Your task to perform on an android device: find photos in the google photos app Image 0: 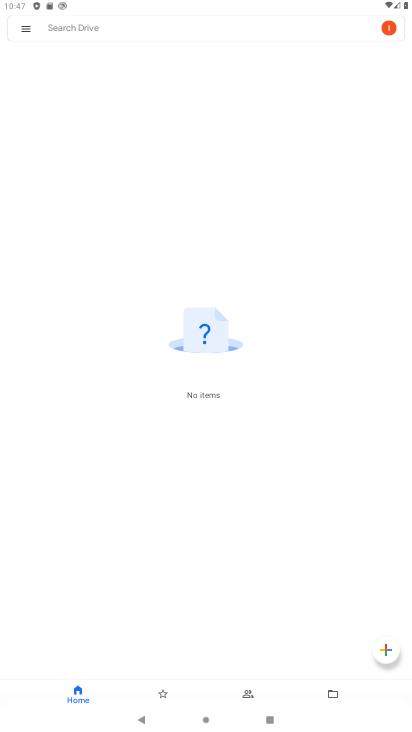
Step 0: press home button
Your task to perform on an android device: find photos in the google photos app Image 1: 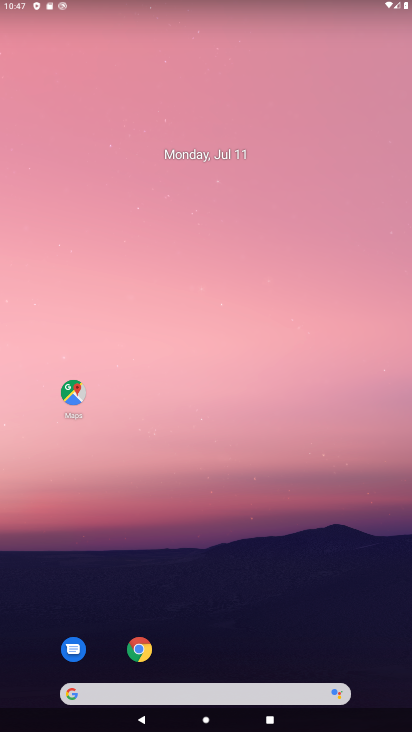
Step 1: drag from (191, 698) to (196, 283)
Your task to perform on an android device: find photos in the google photos app Image 2: 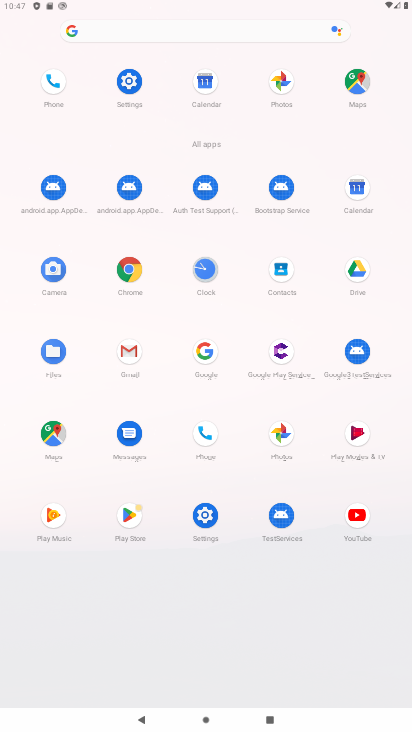
Step 2: click (282, 433)
Your task to perform on an android device: find photos in the google photos app Image 3: 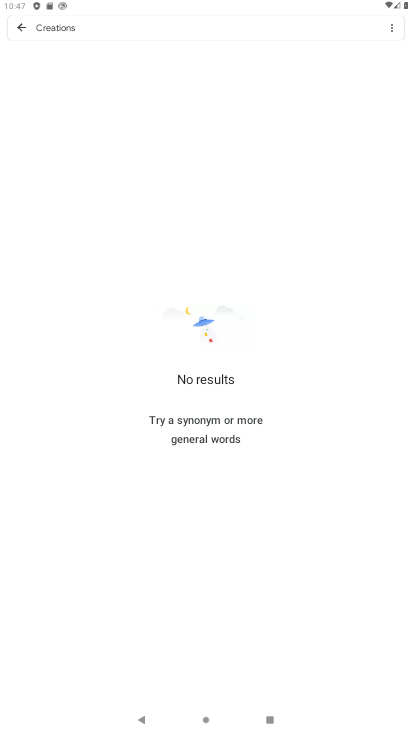
Step 3: click (22, 31)
Your task to perform on an android device: find photos in the google photos app Image 4: 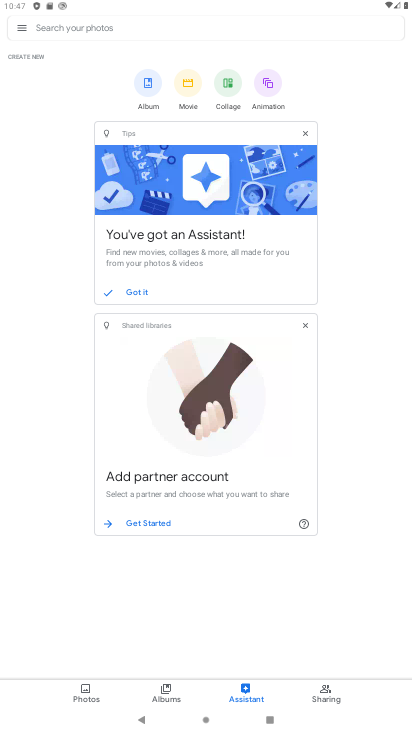
Step 4: click (88, 696)
Your task to perform on an android device: find photos in the google photos app Image 5: 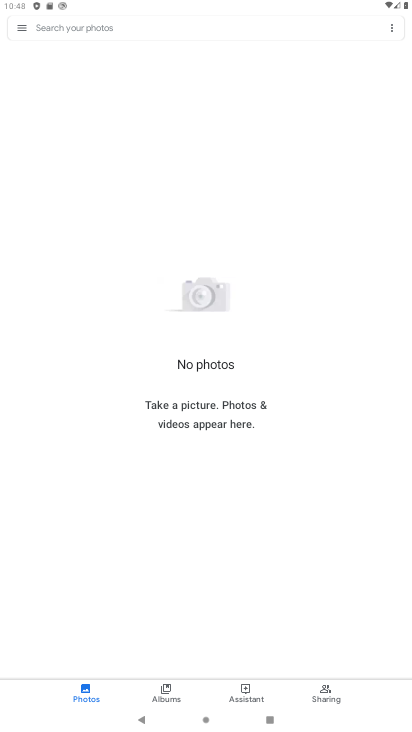
Step 5: click (47, 121)
Your task to perform on an android device: find photos in the google photos app Image 6: 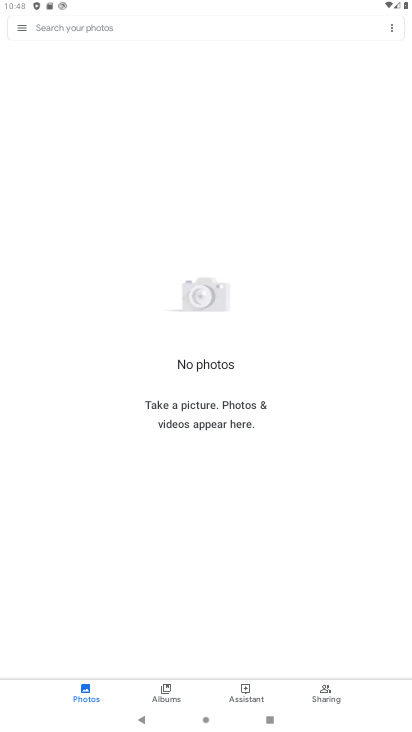
Step 6: task complete